Your task to perform on an android device: delete browsing data in the chrome app Image 0: 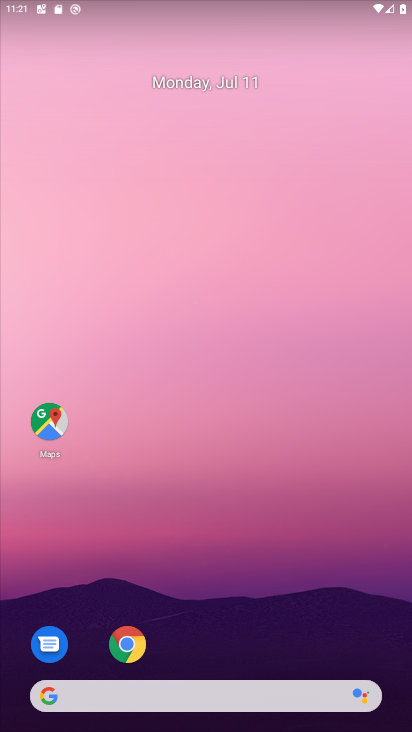
Step 0: click (123, 650)
Your task to perform on an android device: delete browsing data in the chrome app Image 1: 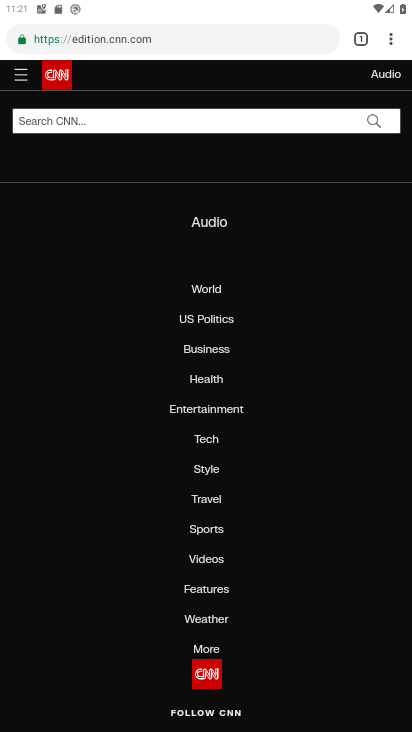
Step 1: click (382, 37)
Your task to perform on an android device: delete browsing data in the chrome app Image 2: 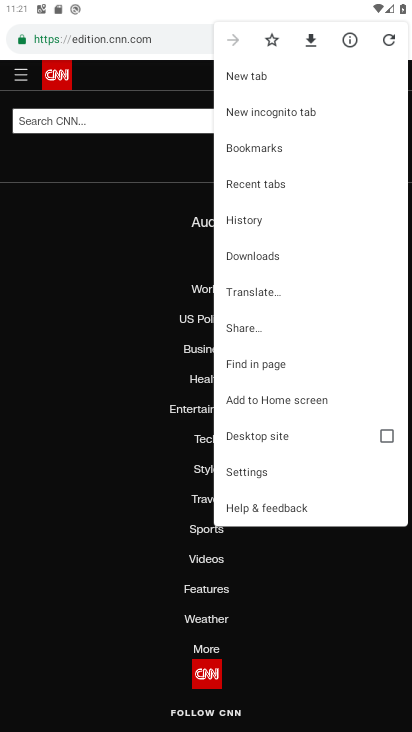
Step 2: click (278, 217)
Your task to perform on an android device: delete browsing data in the chrome app Image 3: 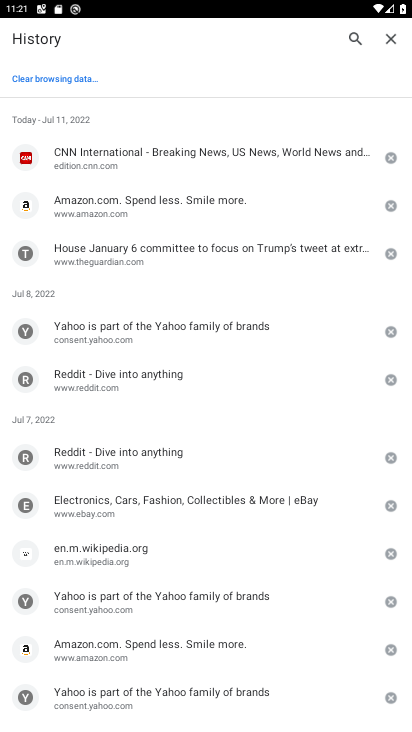
Step 3: click (57, 77)
Your task to perform on an android device: delete browsing data in the chrome app Image 4: 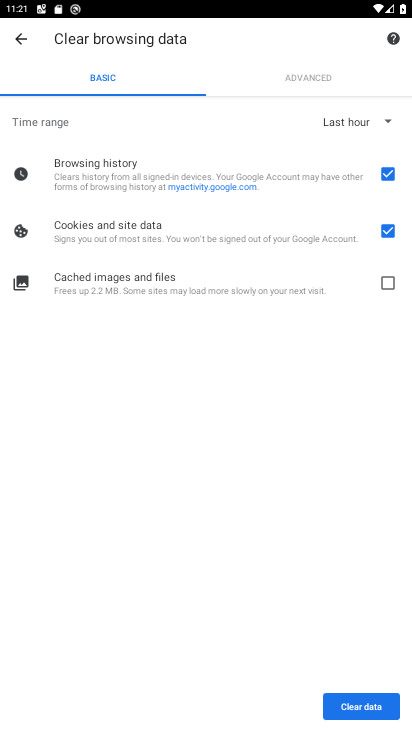
Step 4: click (382, 283)
Your task to perform on an android device: delete browsing data in the chrome app Image 5: 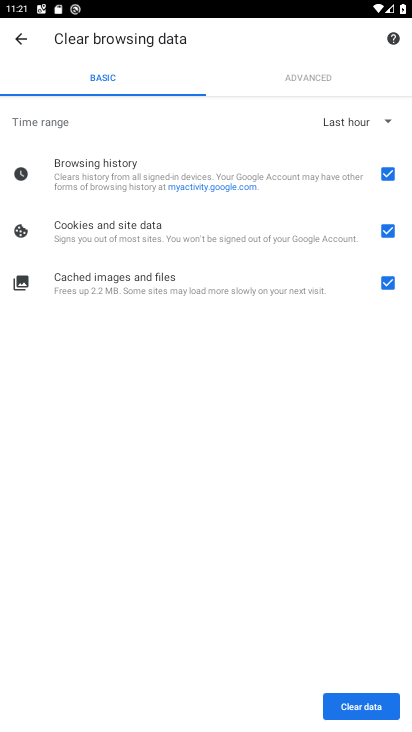
Step 5: click (359, 711)
Your task to perform on an android device: delete browsing data in the chrome app Image 6: 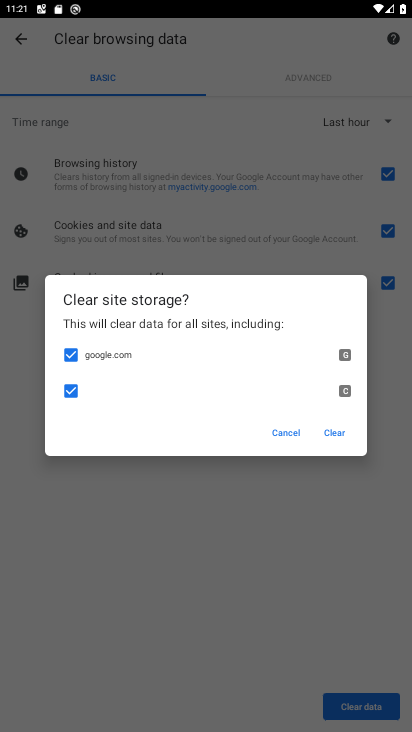
Step 6: click (331, 429)
Your task to perform on an android device: delete browsing data in the chrome app Image 7: 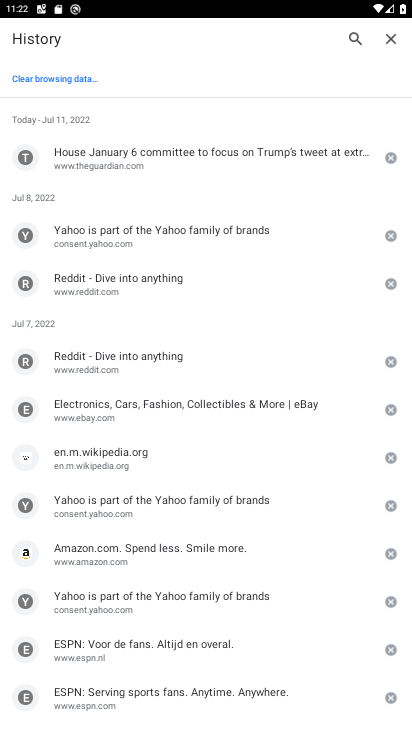
Step 7: task complete